Your task to perform on an android device: Open ESPN.com Image 0: 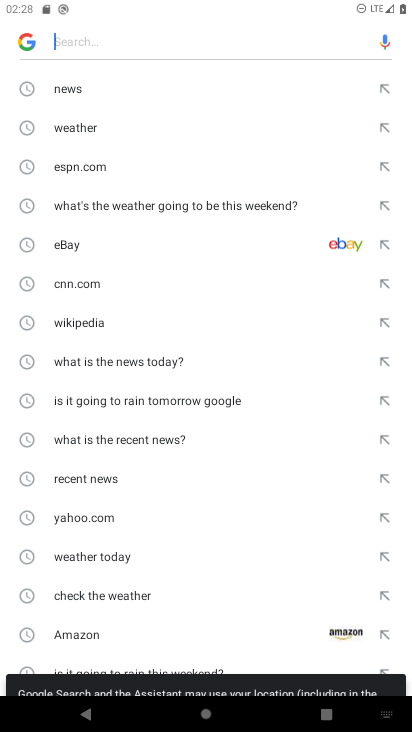
Step 0: click (91, 162)
Your task to perform on an android device: Open ESPN.com Image 1: 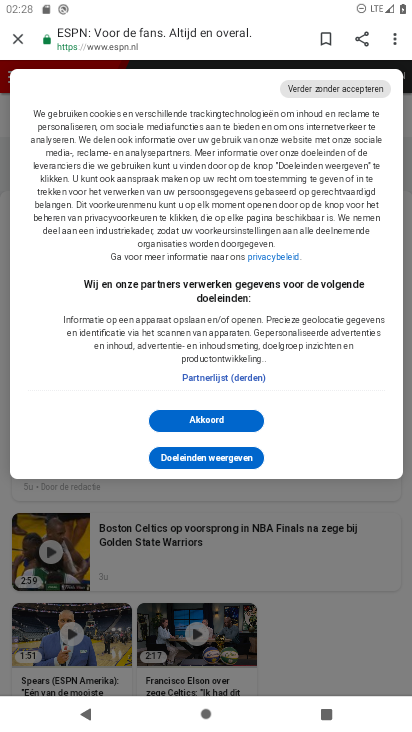
Step 1: task complete